Your task to perform on an android device: turn off priority inbox in the gmail app Image 0: 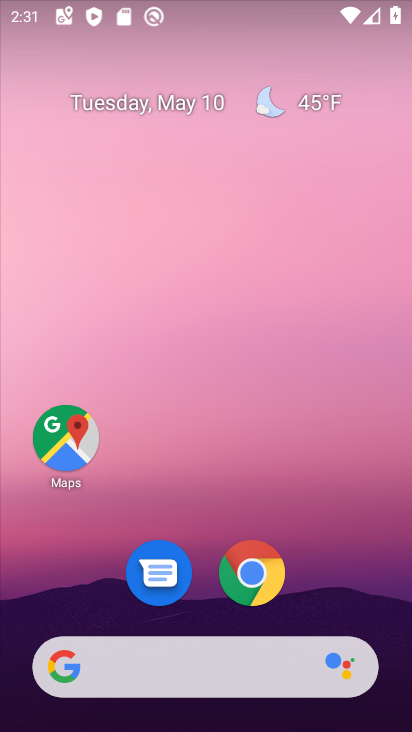
Step 0: drag from (210, 605) to (196, 210)
Your task to perform on an android device: turn off priority inbox in the gmail app Image 1: 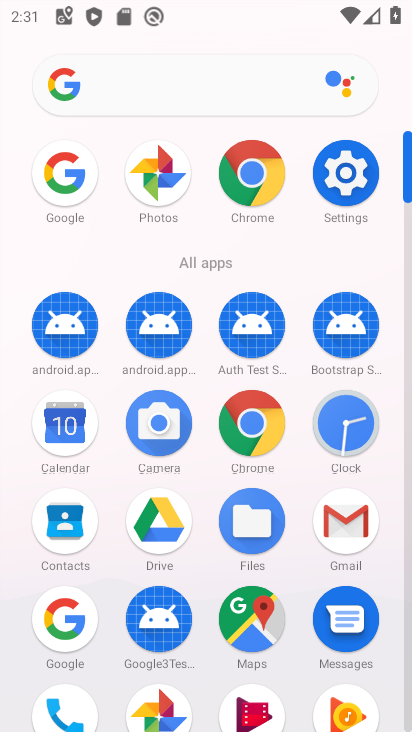
Step 1: click (321, 527)
Your task to perform on an android device: turn off priority inbox in the gmail app Image 2: 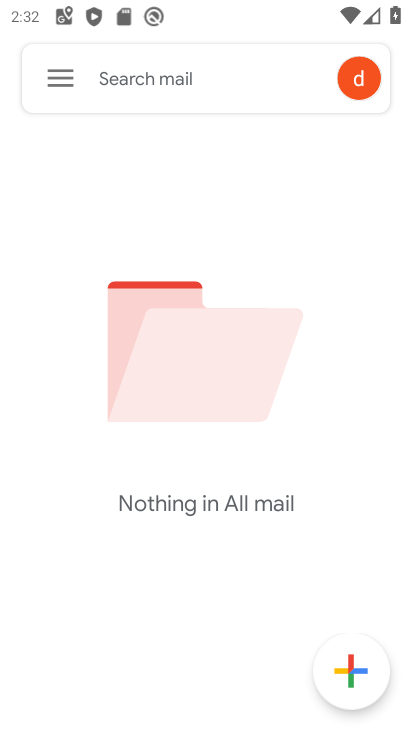
Step 2: click (67, 86)
Your task to perform on an android device: turn off priority inbox in the gmail app Image 3: 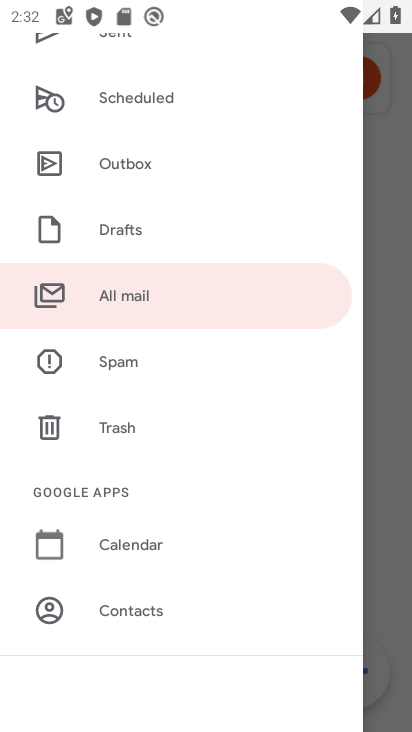
Step 3: drag from (143, 540) to (172, 285)
Your task to perform on an android device: turn off priority inbox in the gmail app Image 4: 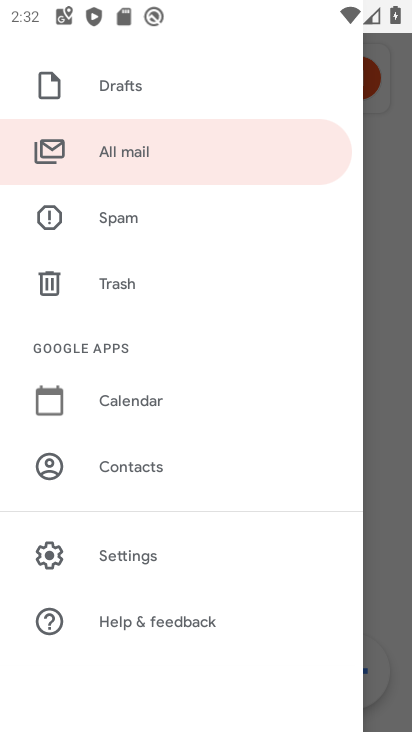
Step 4: click (117, 535)
Your task to perform on an android device: turn off priority inbox in the gmail app Image 5: 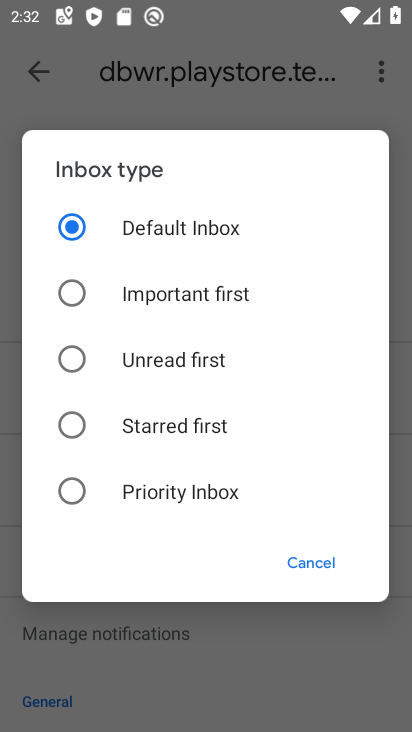
Step 5: task complete